Your task to perform on an android device: add a label to a message in the gmail app Image 0: 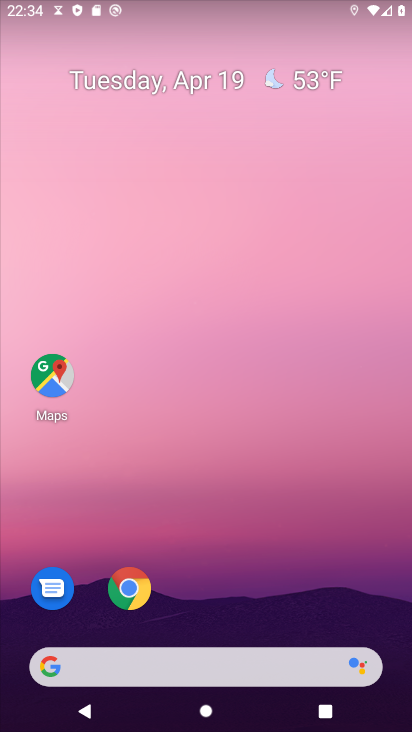
Step 0: drag from (253, 580) to (325, 89)
Your task to perform on an android device: add a label to a message in the gmail app Image 1: 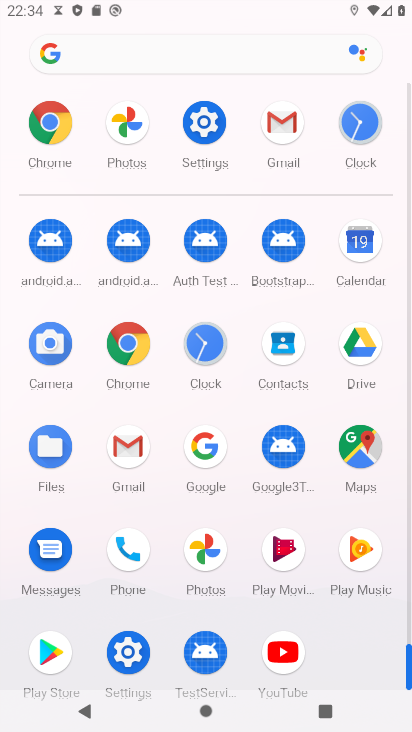
Step 1: click (130, 446)
Your task to perform on an android device: add a label to a message in the gmail app Image 2: 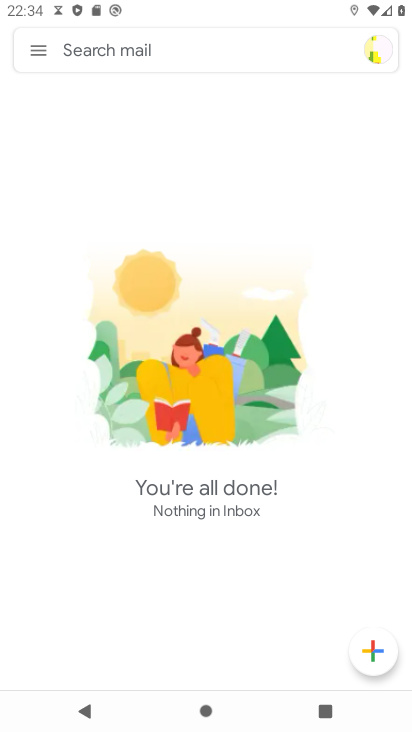
Step 2: click (40, 53)
Your task to perform on an android device: add a label to a message in the gmail app Image 3: 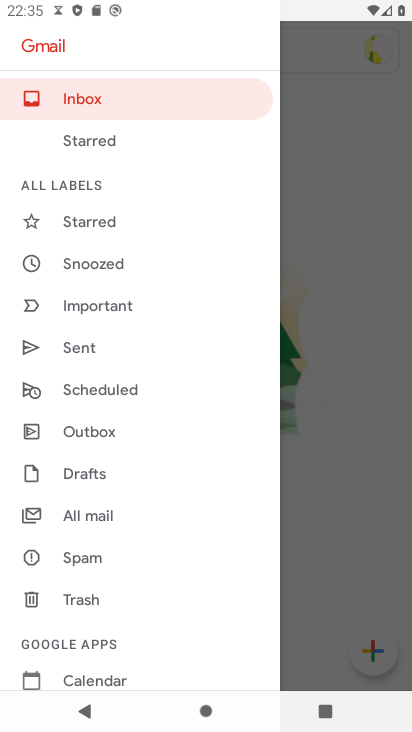
Step 3: click (78, 515)
Your task to perform on an android device: add a label to a message in the gmail app Image 4: 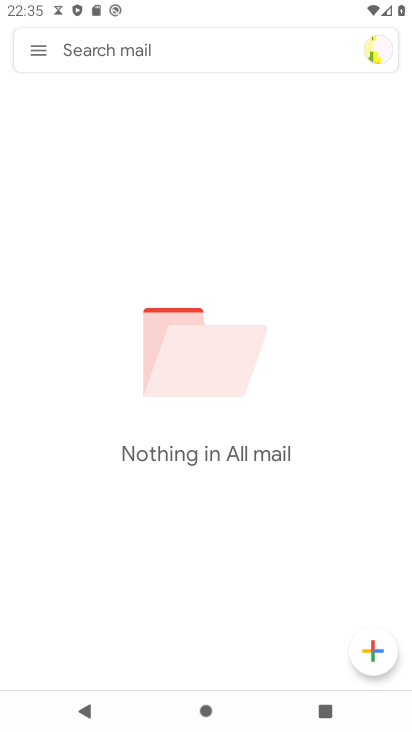
Step 4: task complete